Your task to perform on an android device: set default search engine in the chrome app Image 0: 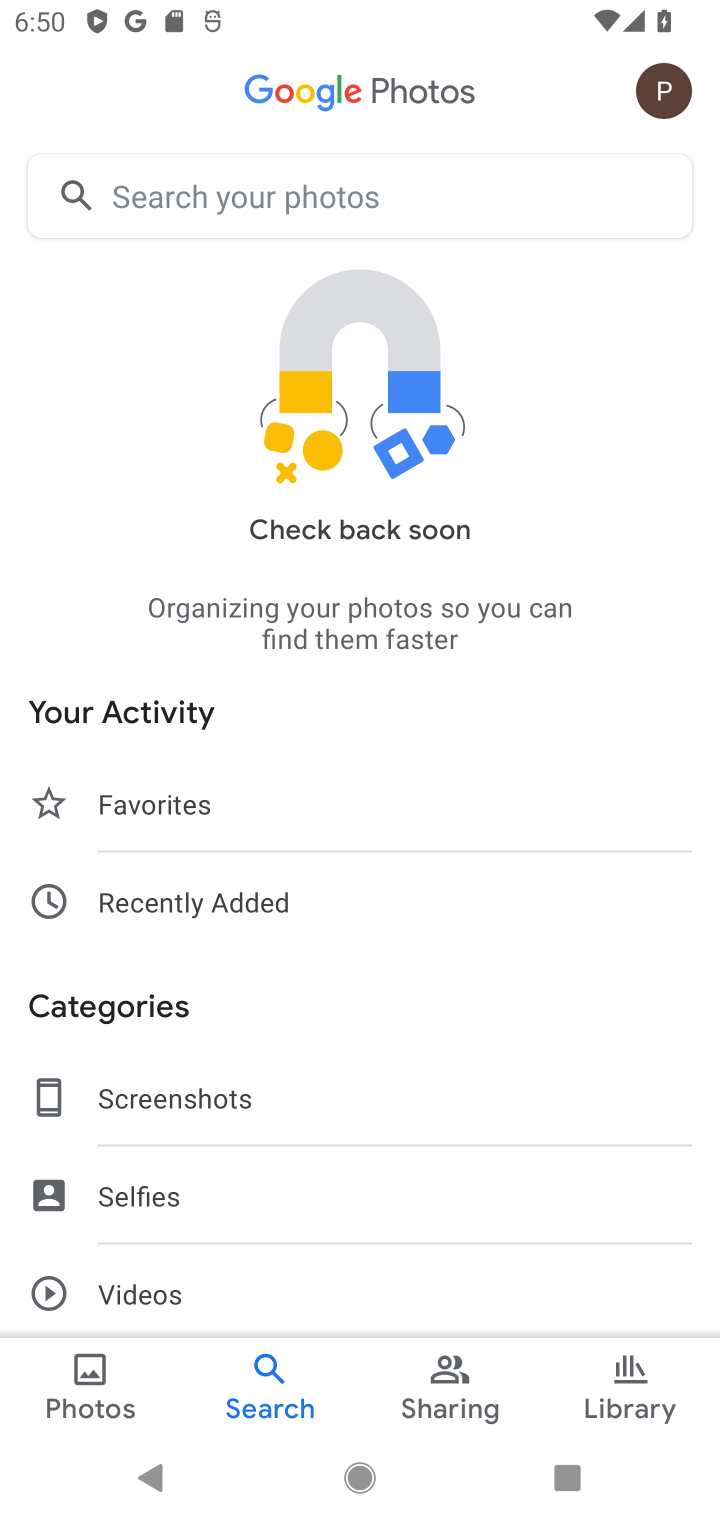
Step 0: press home button
Your task to perform on an android device: set default search engine in the chrome app Image 1: 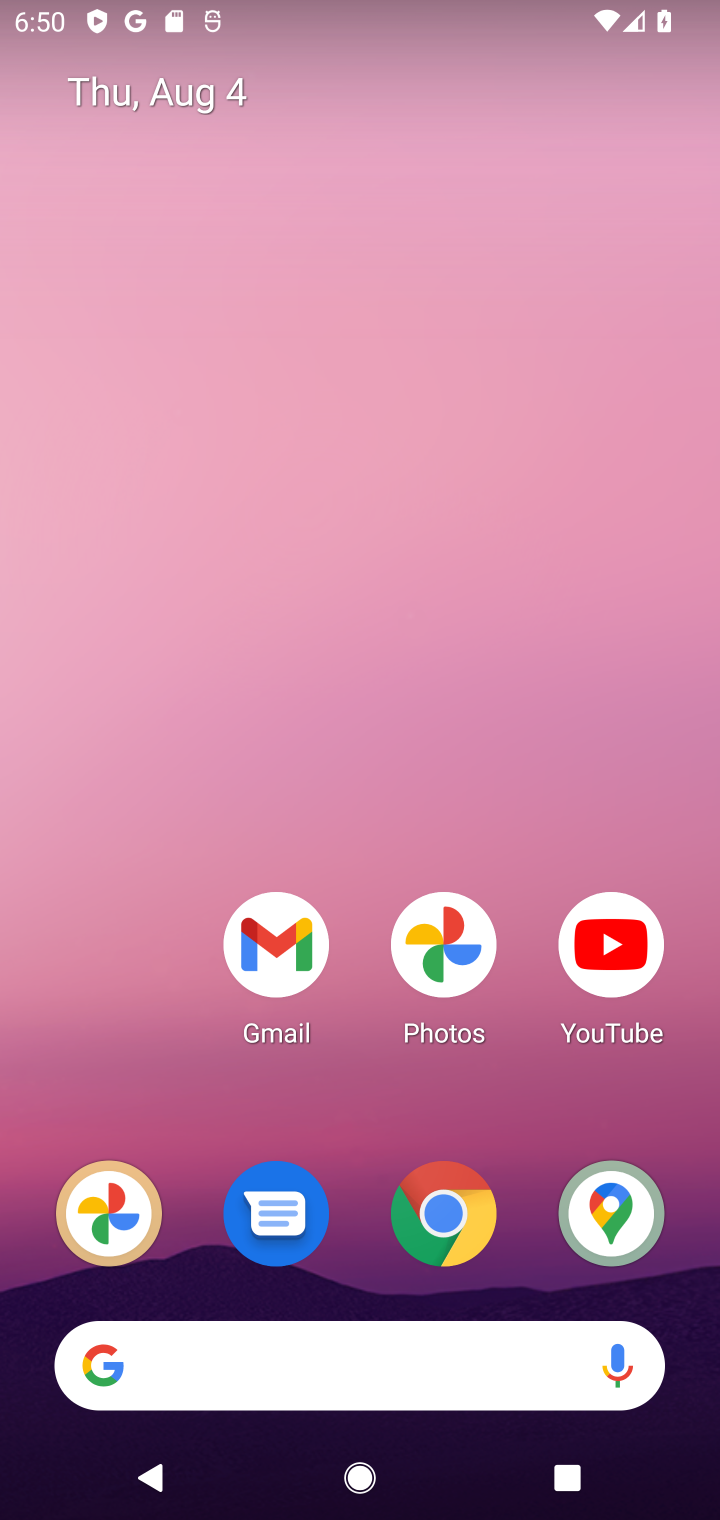
Step 1: click (422, 1230)
Your task to perform on an android device: set default search engine in the chrome app Image 2: 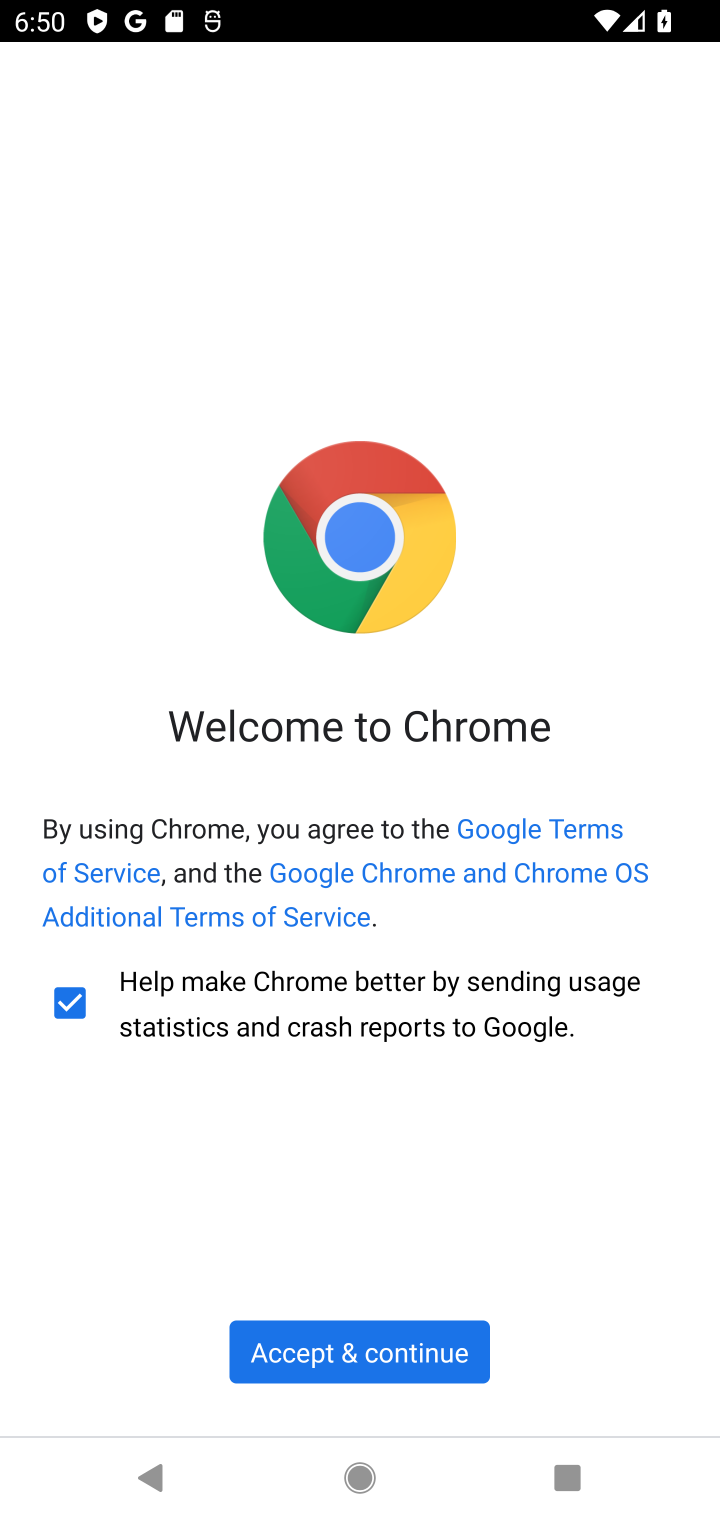
Step 2: click (356, 1347)
Your task to perform on an android device: set default search engine in the chrome app Image 3: 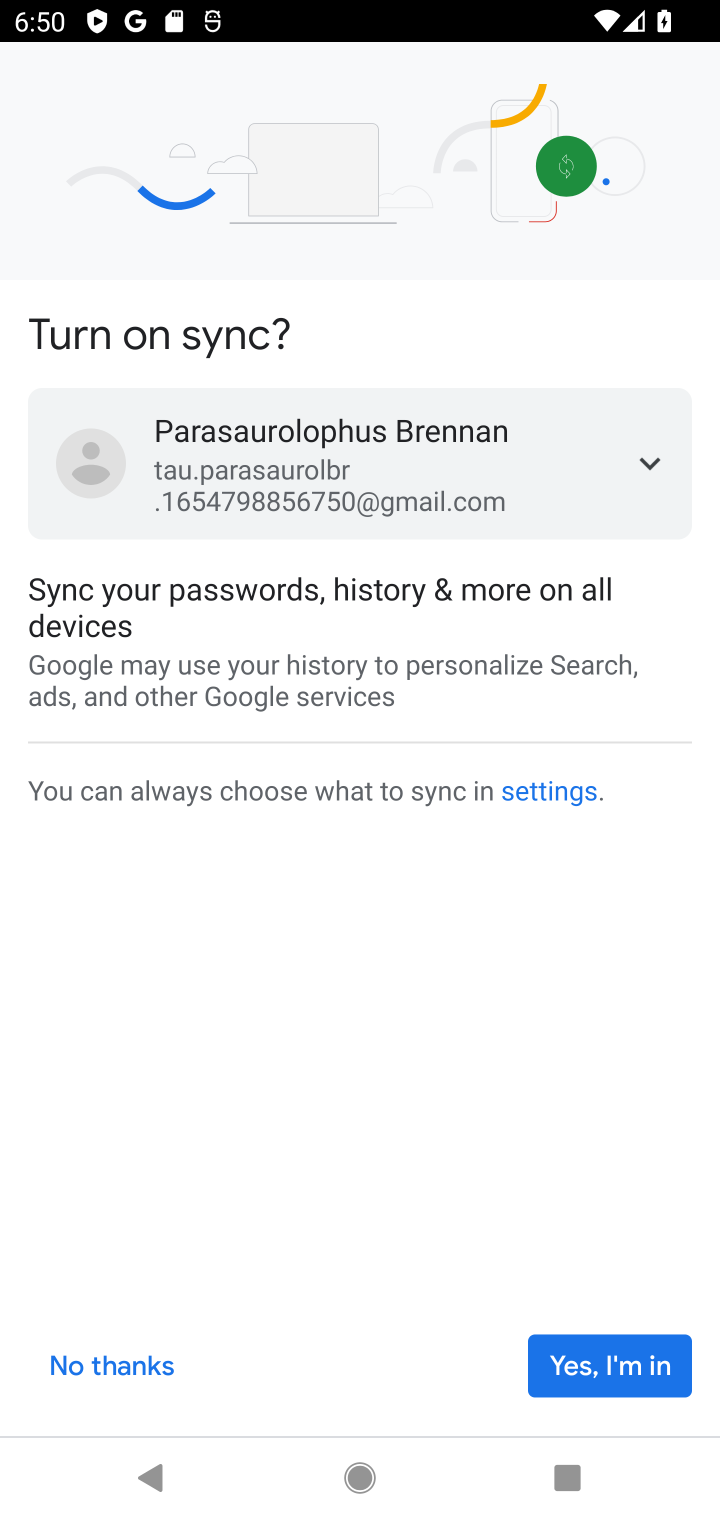
Step 3: click (569, 1352)
Your task to perform on an android device: set default search engine in the chrome app Image 4: 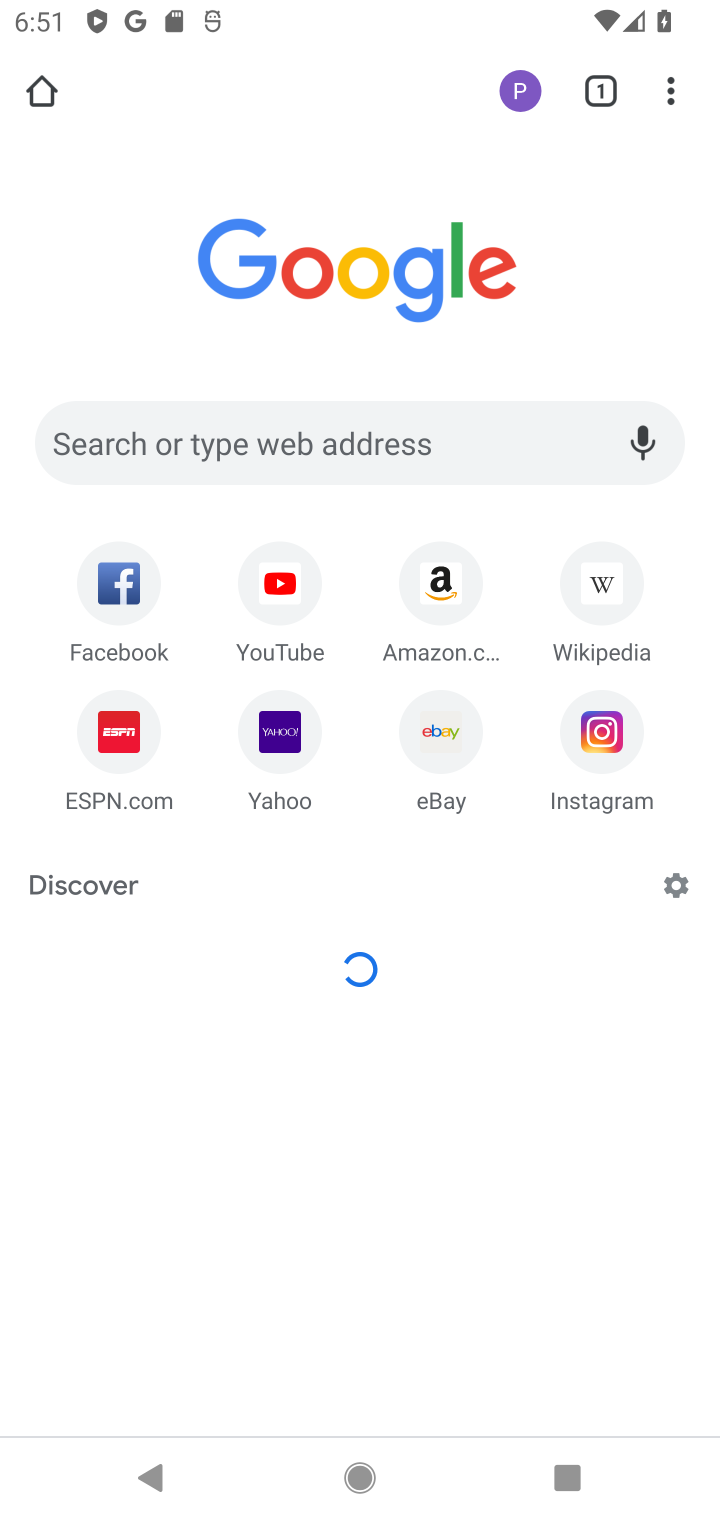
Step 4: click (670, 79)
Your task to perform on an android device: set default search engine in the chrome app Image 5: 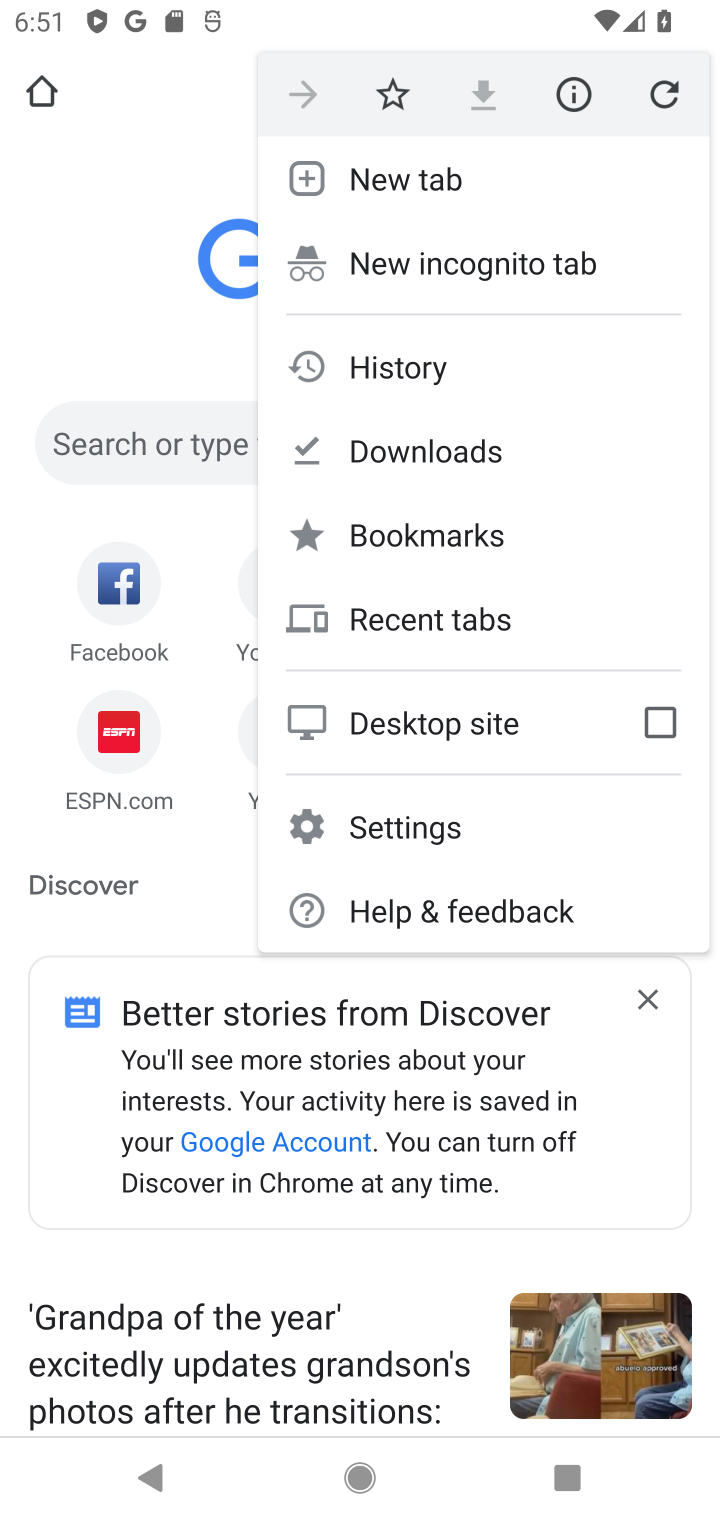
Step 5: click (398, 818)
Your task to perform on an android device: set default search engine in the chrome app Image 6: 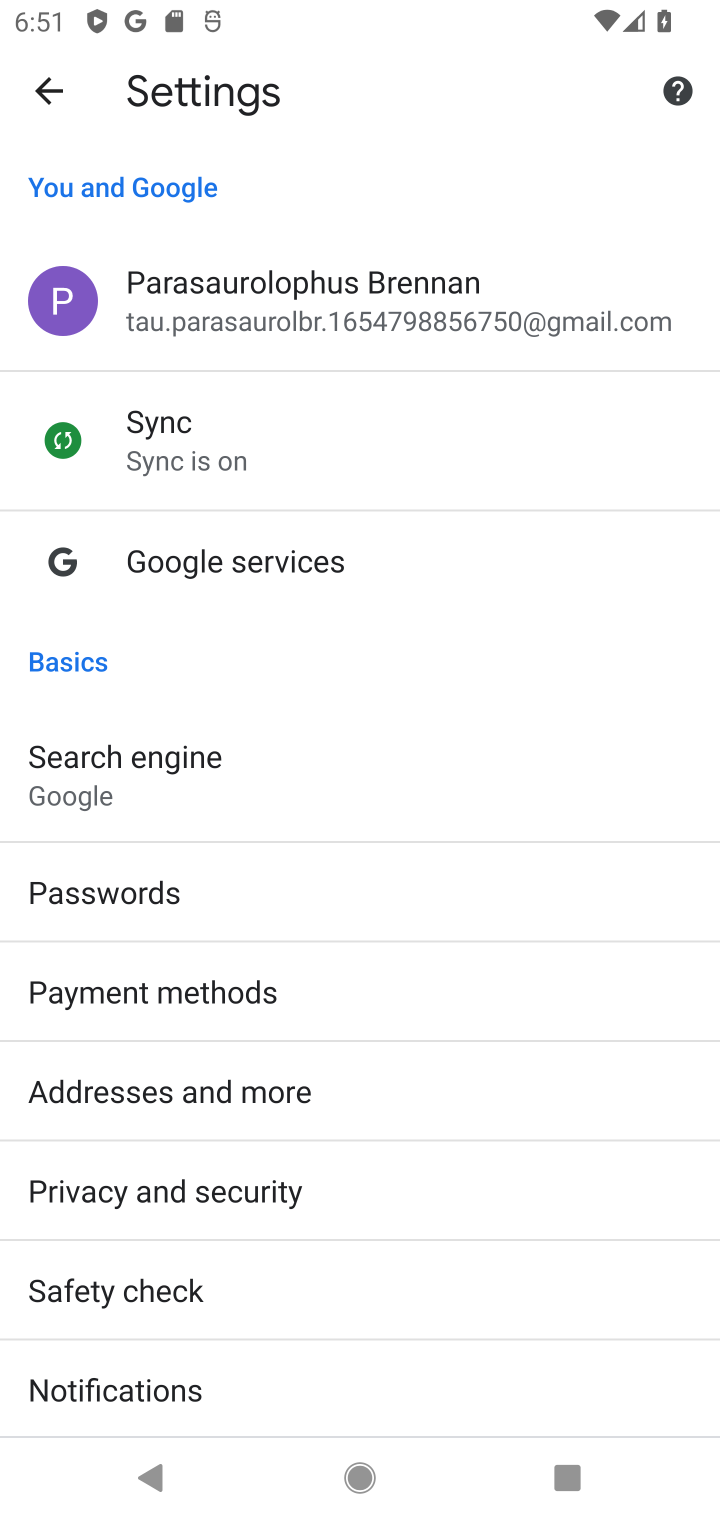
Step 6: click (266, 787)
Your task to perform on an android device: set default search engine in the chrome app Image 7: 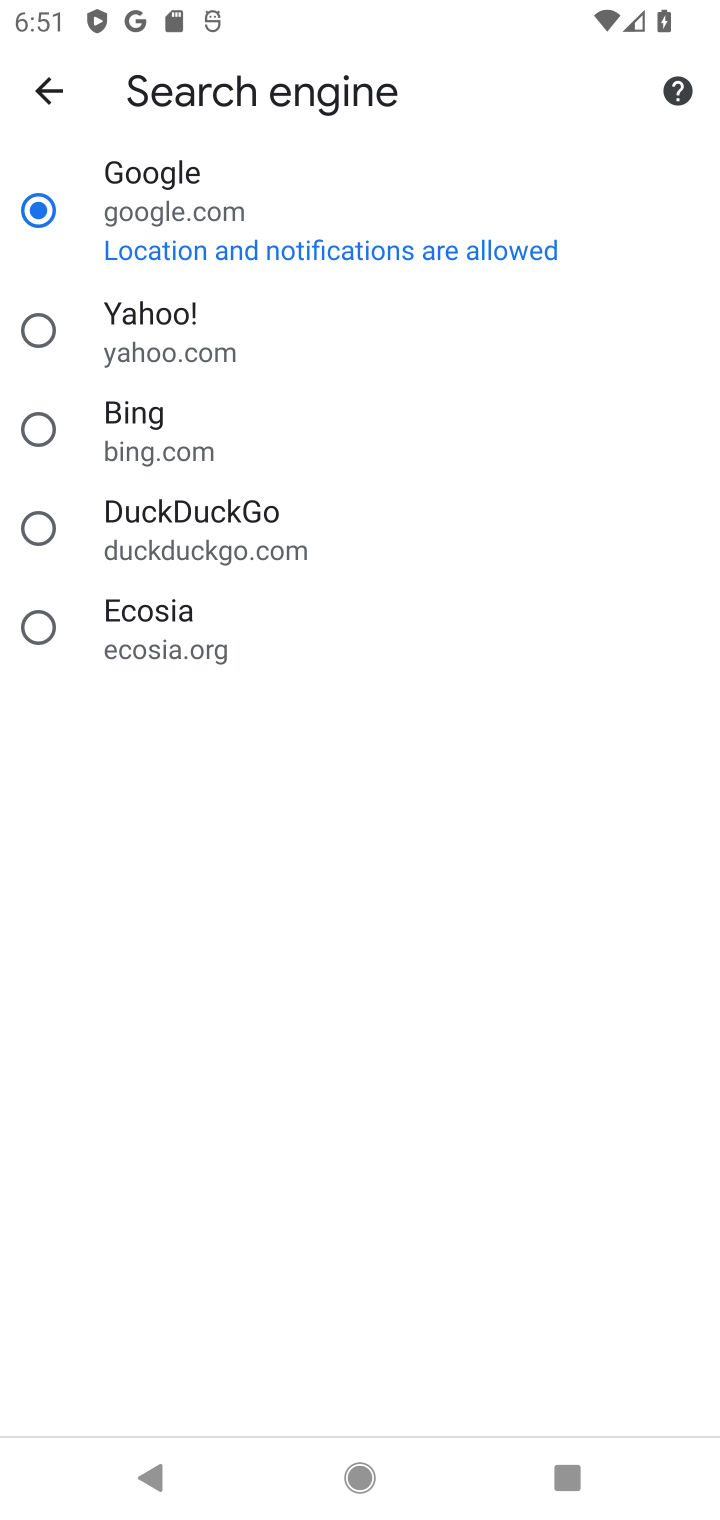
Step 7: click (300, 322)
Your task to perform on an android device: set default search engine in the chrome app Image 8: 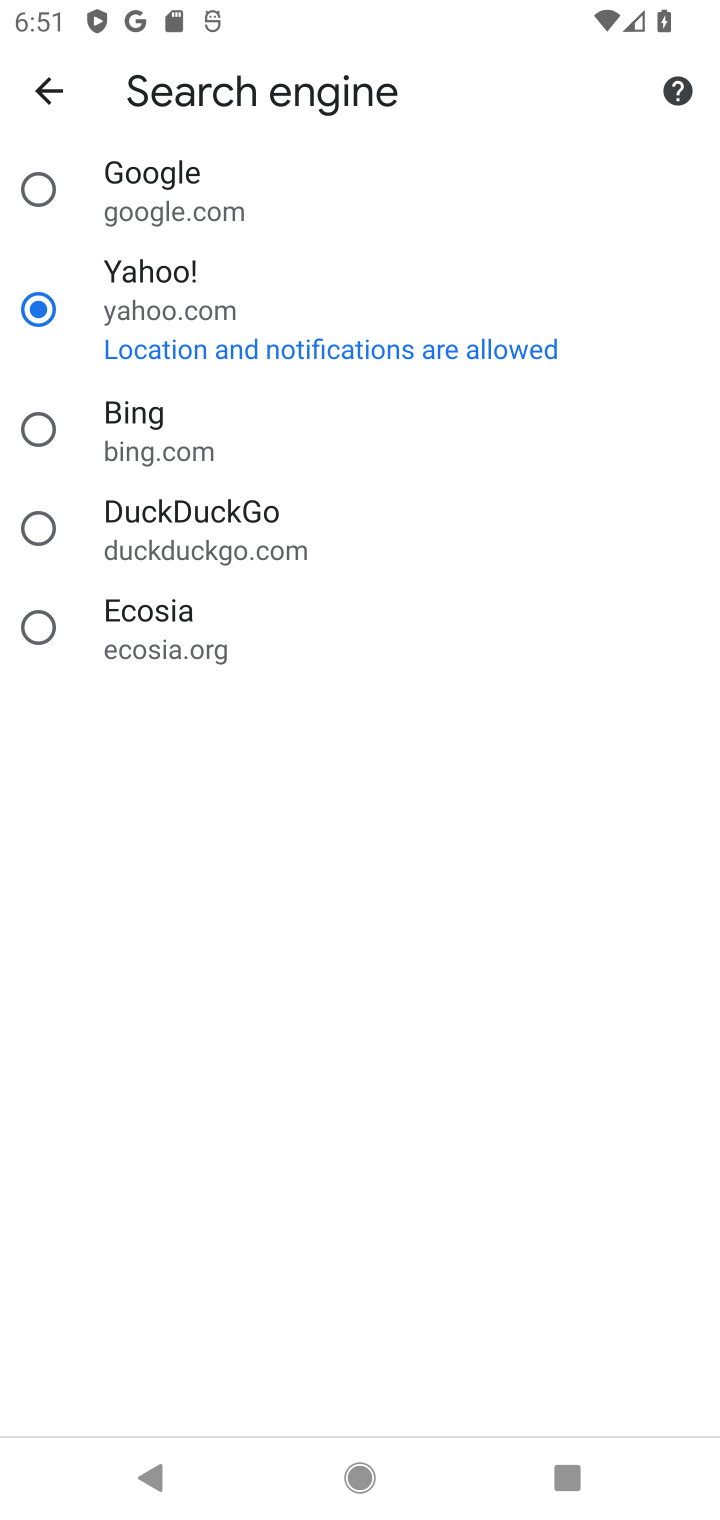
Step 8: task complete